Your task to perform on an android device: Open calendar and show me the first week of next month Image 0: 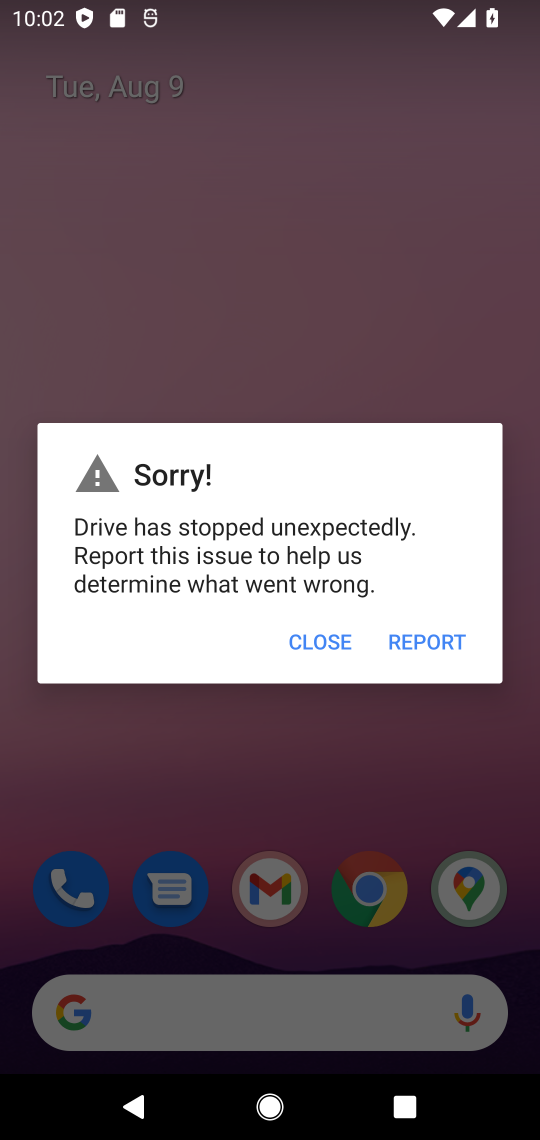
Step 0: click (321, 637)
Your task to perform on an android device: Open calendar and show me the first week of next month Image 1: 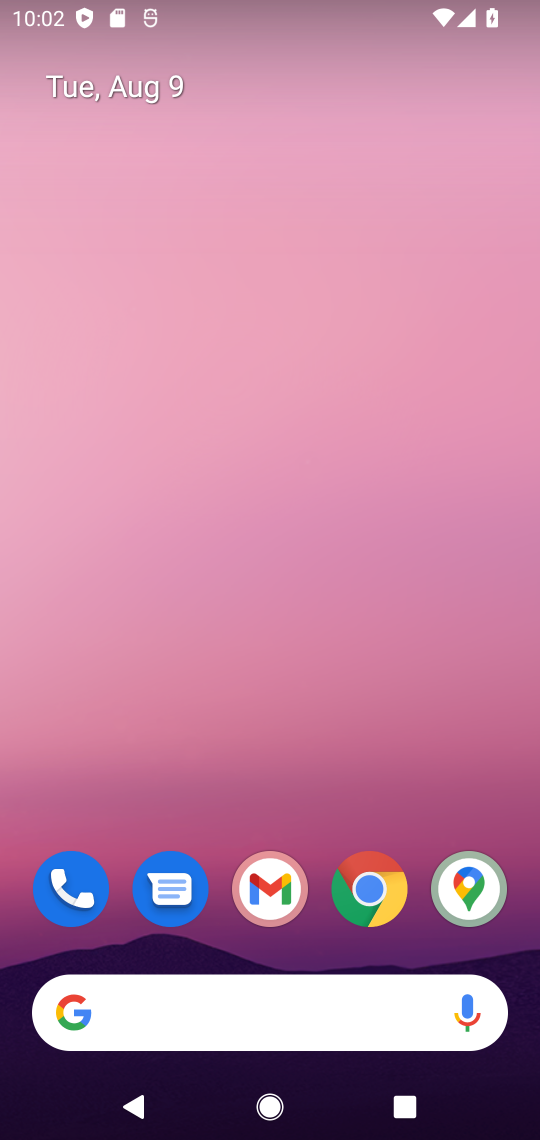
Step 1: drag from (234, 779) to (388, 1)
Your task to perform on an android device: Open calendar and show me the first week of next month Image 2: 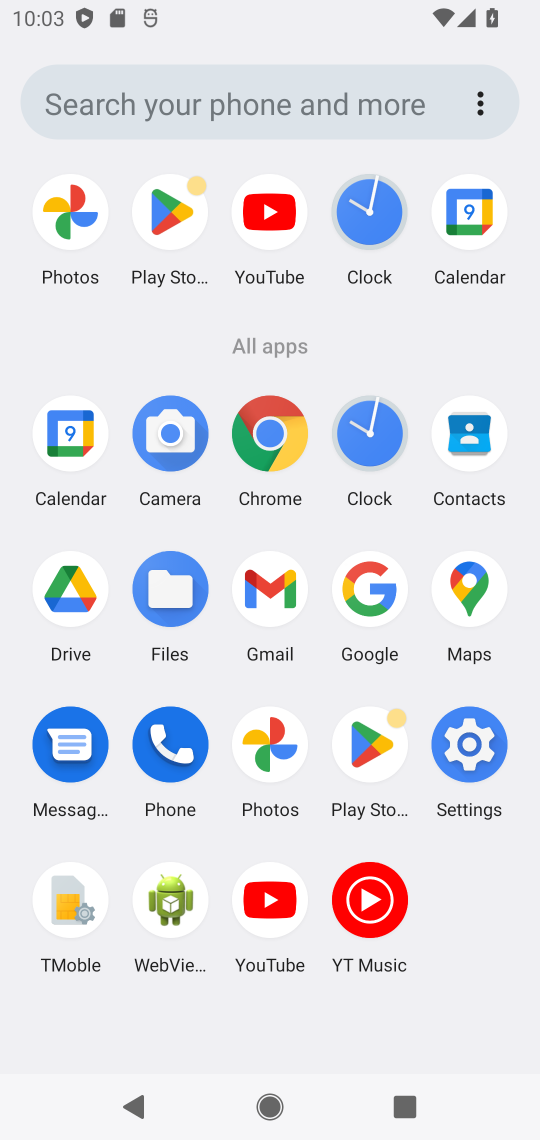
Step 2: click (469, 225)
Your task to perform on an android device: Open calendar and show me the first week of next month Image 3: 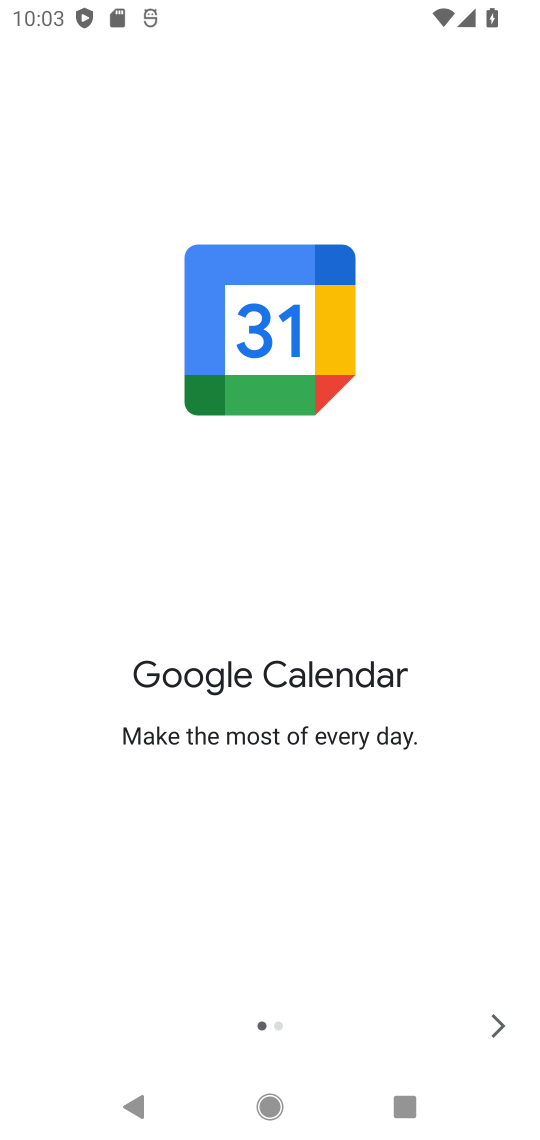
Step 3: click (486, 1023)
Your task to perform on an android device: Open calendar and show me the first week of next month Image 4: 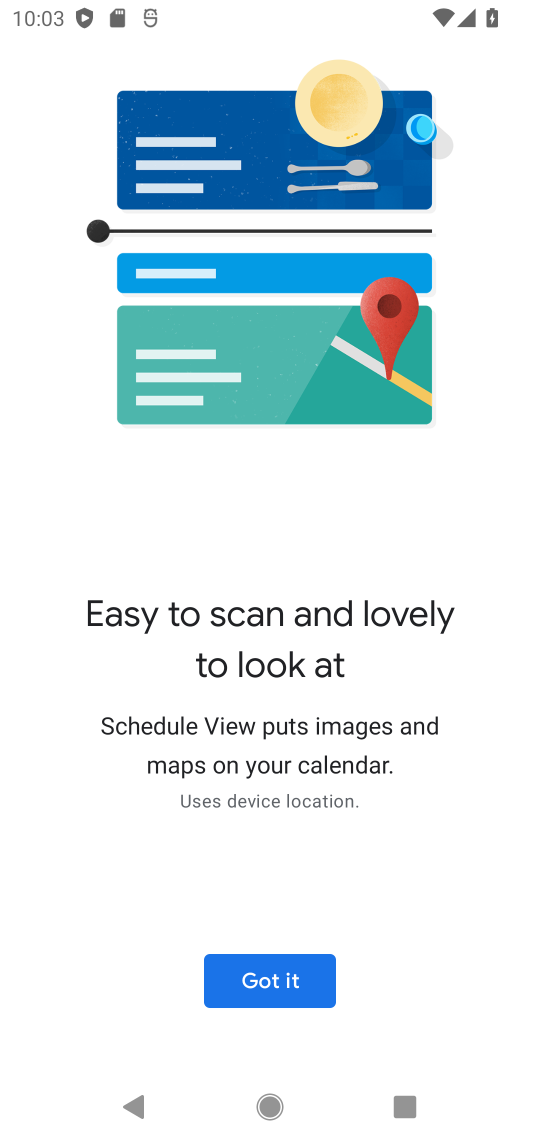
Step 4: click (265, 986)
Your task to perform on an android device: Open calendar and show me the first week of next month Image 5: 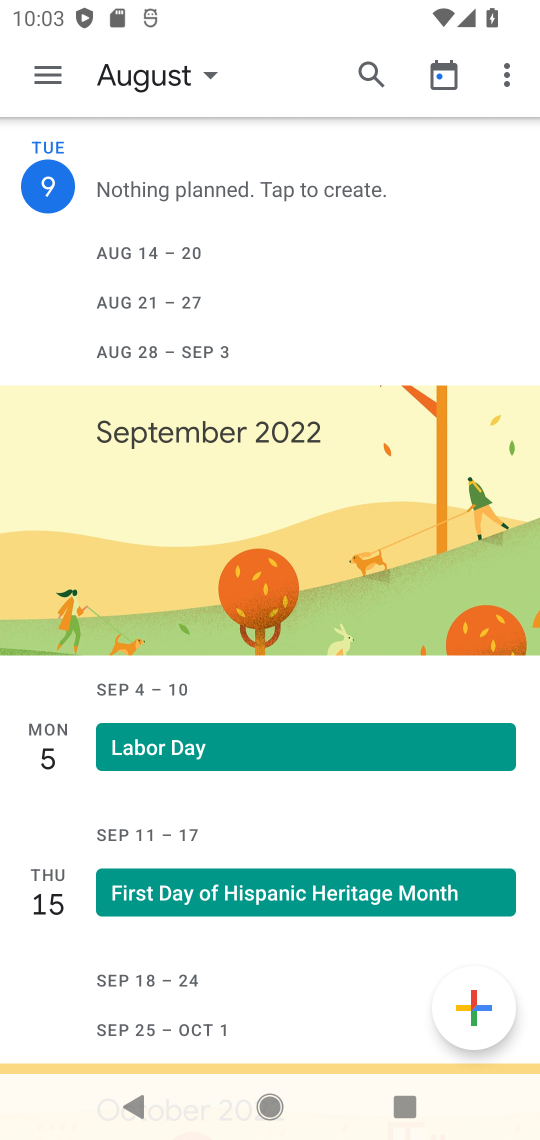
Step 5: click (151, 83)
Your task to perform on an android device: Open calendar and show me the first week of next month Image 6: 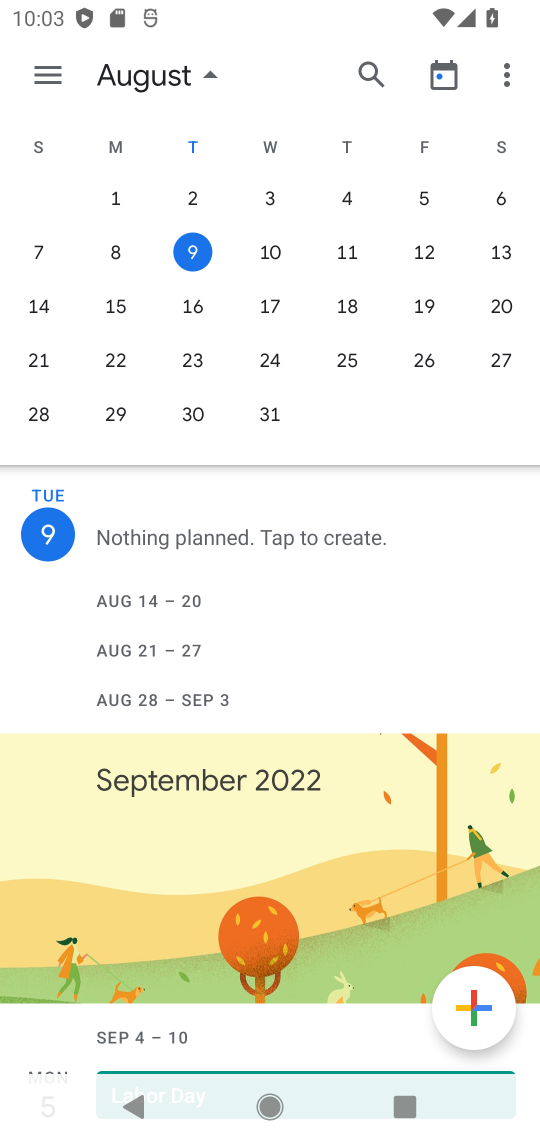
Step 6: drag from (510, 243) to (105, 265)
Your task to perform on an android device: Open calendar and show me the first week of next month Image 7: 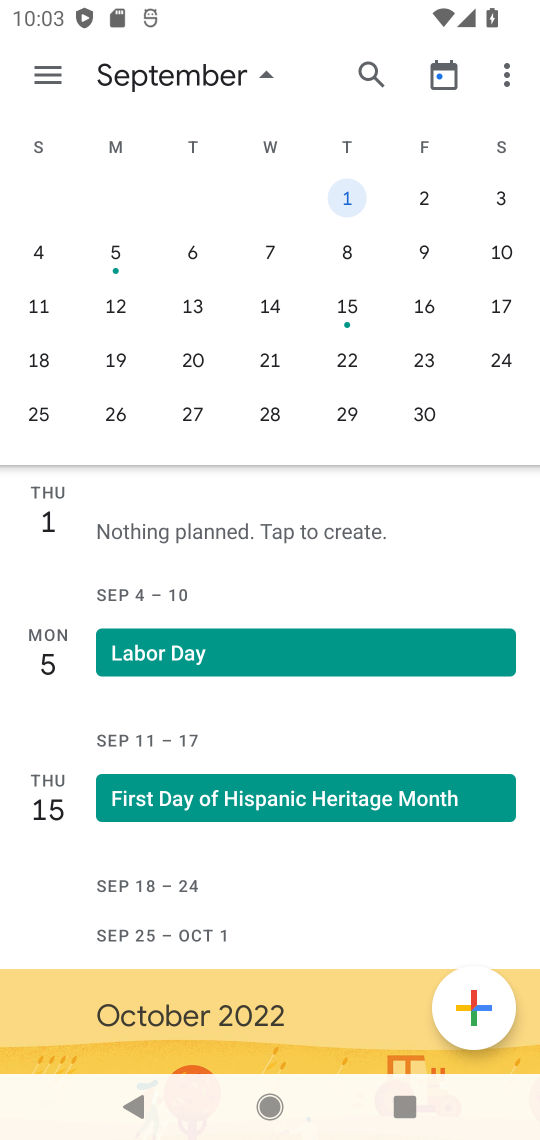
Step 7: click (117, 245)
Your task to perform on an android device: Open calendar and show me the first week of next month Image 8: 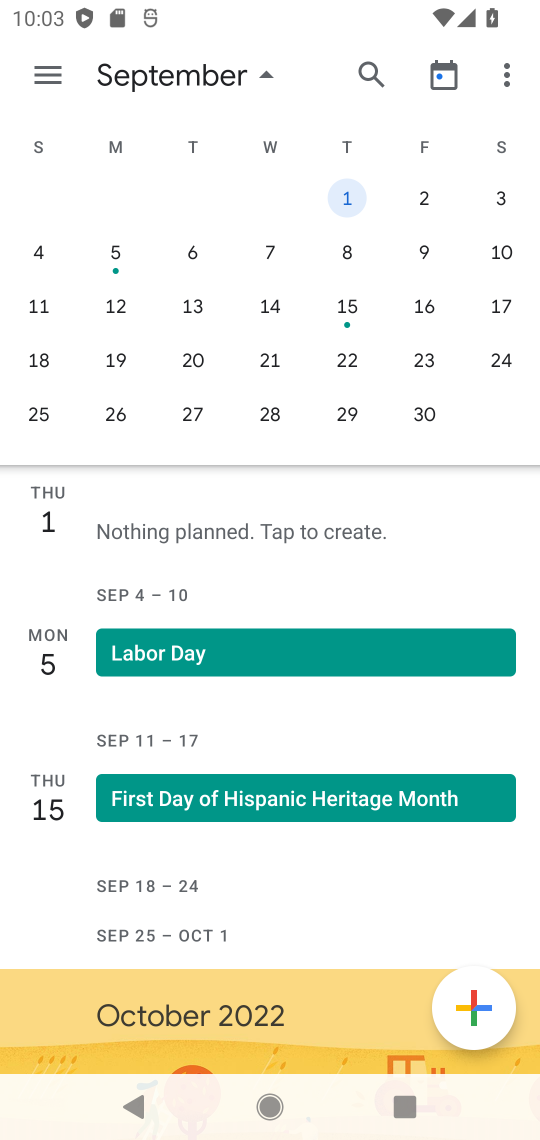
Step 8: click (350, 189)
Your task to perform on an android device: Open calendar and show me the first week of next month Image 9: 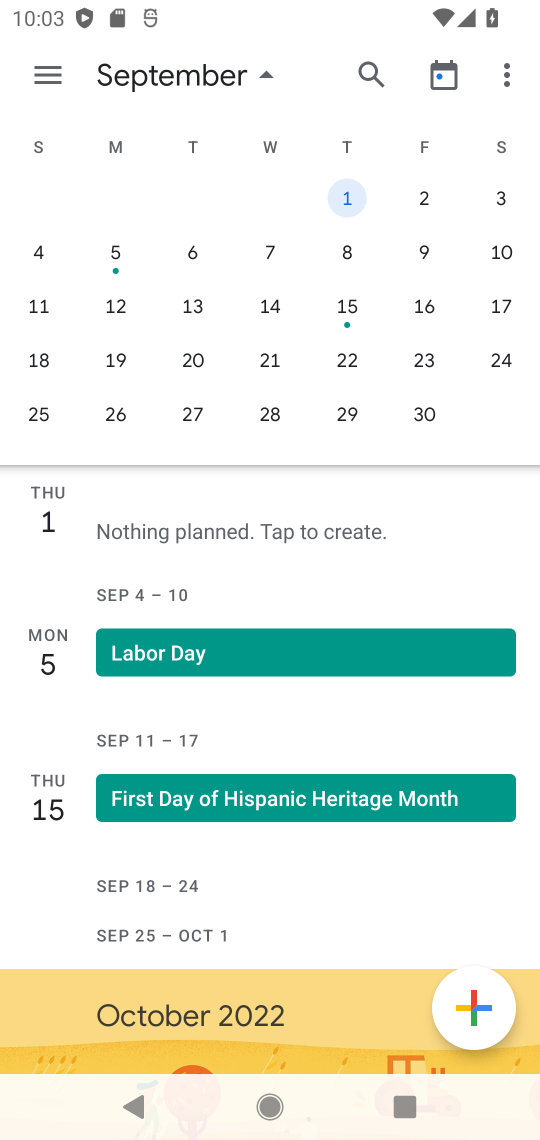
Step 9: task complete